Your task to perform on an android device: choose inbox layout in the gmail app Image 0: 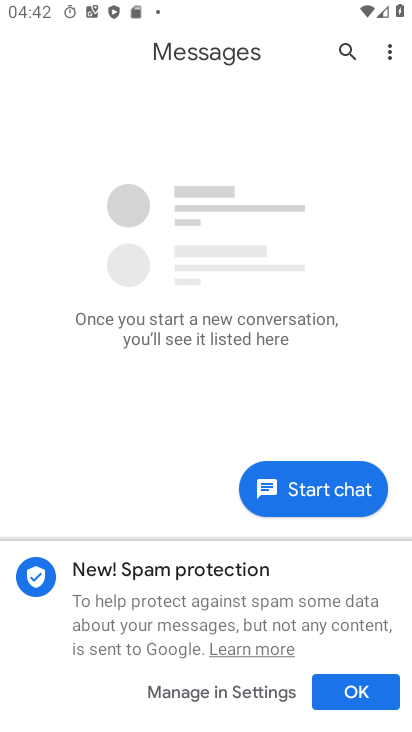
Step 0: press back button
Your task to perform on an android device: choose inbox layout in the gmail app Image 1: 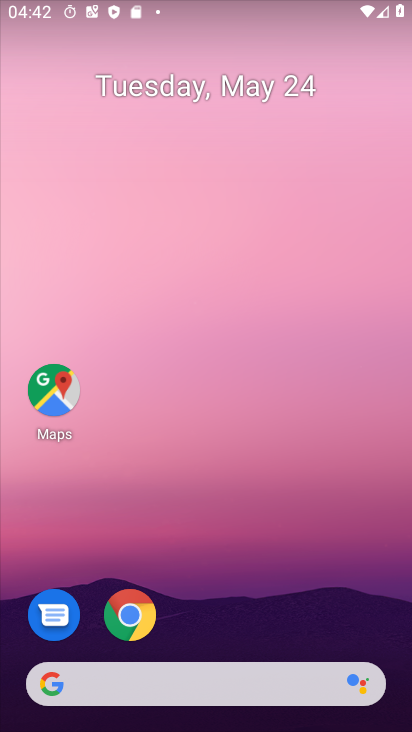
Step 1: drag from (254, 546) to (309, 49)
Your task to perform on an android device: choose inbox layout in the gmail app Image 2: 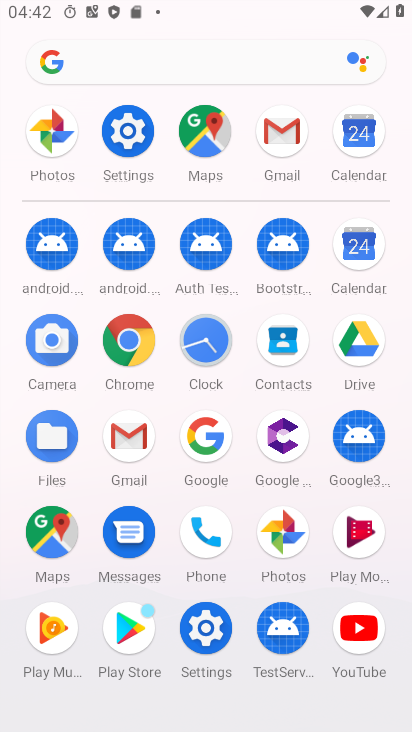
Step 2: click (291, 130)
Your task to perform on an android device: choose inbox layout in the gmail app Image 3: 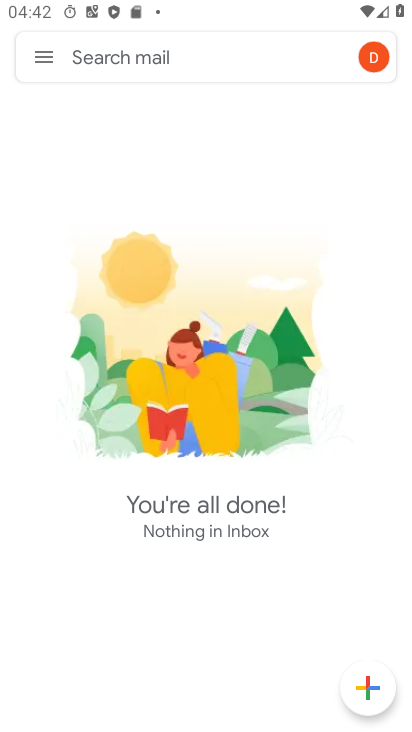
Step 3: click (43, 55)
Your task to perform on an android device: choose inbox layout in the gmail app Image 4: 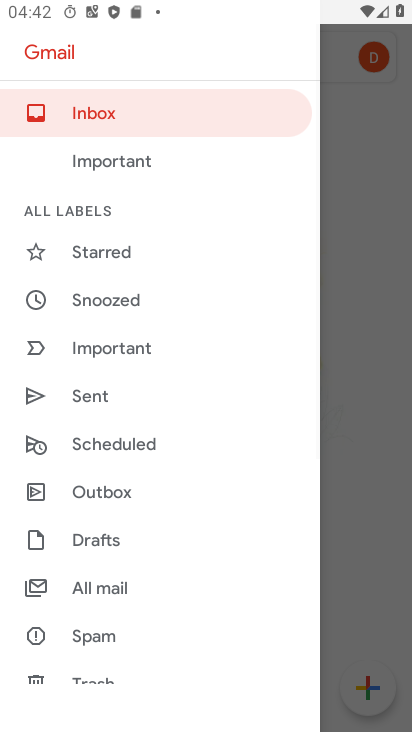
Step 4: drag from (147, 614) to (214, 52)
Your task to perform on an android device: choose inbox layout in the gmail app Image 5: 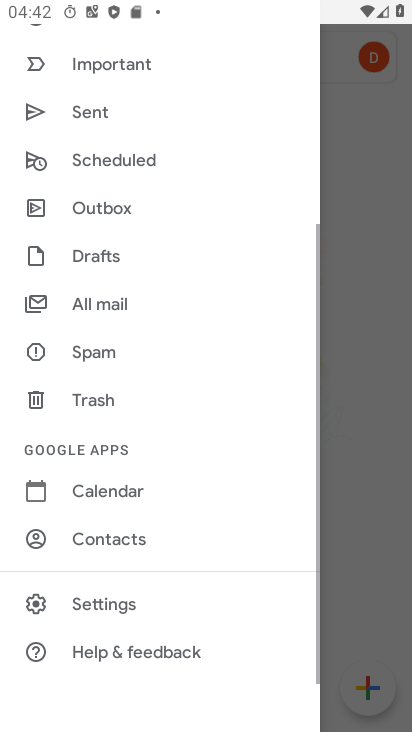
Step 5: click (117, 598)
Your task to perform on an android device: choose inbox layout in the gmail app Image 6: 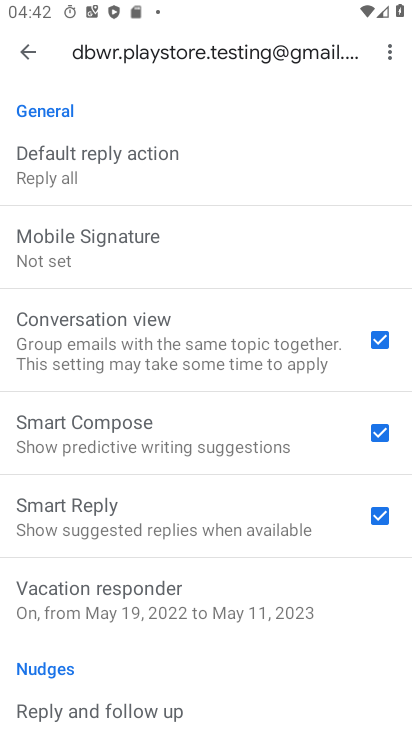
Step 6: drag from (157, 164) to (140, 687)
Your task to perform on an android device: choose inbox layout in the gmail app Image 7: 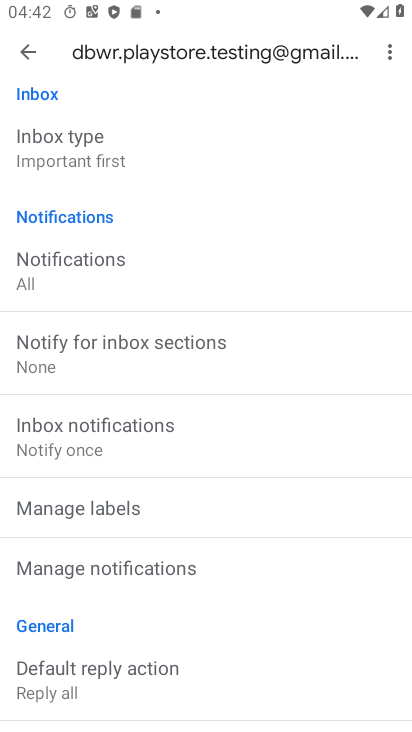
Step 7: click (117, 153)
Your task to perform on an android device: choose inbox layout in the gmail app Image 8: 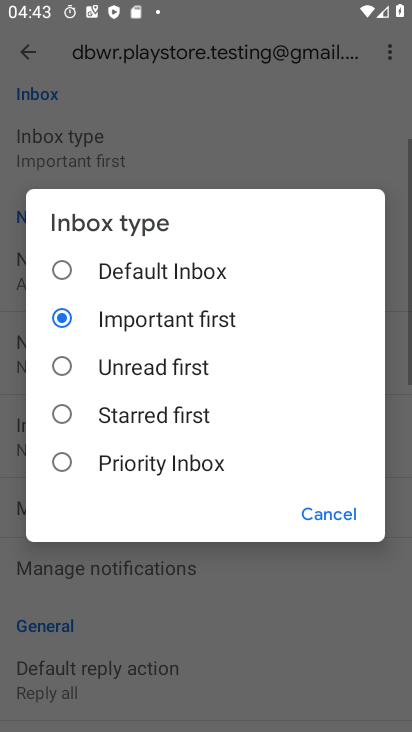
Step 8: click (54, 263)
Your task to perform on an android device: choose inbox layout in the gmail app Image 9: 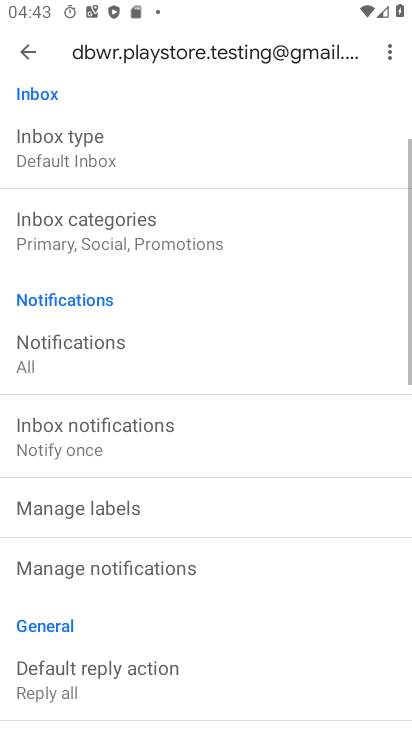
Step 9: task complete